Your task to perform on an android device: Go to network settings Image 0: 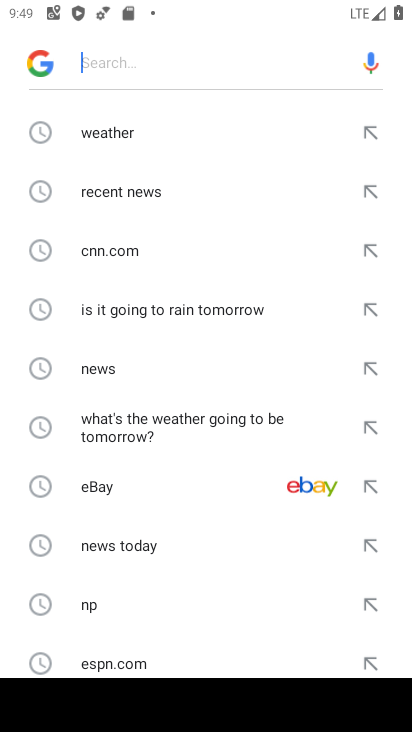
Step 0: press home button
Your task to perform on an android device: Go to network settings Image 1: 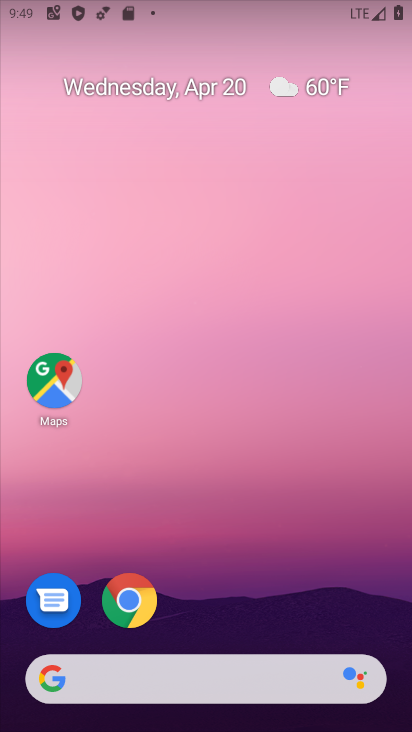
Step 1: drag from (219, 632) to (190, 53)
Your task to perform on an android device: Go to network settings Image 2: 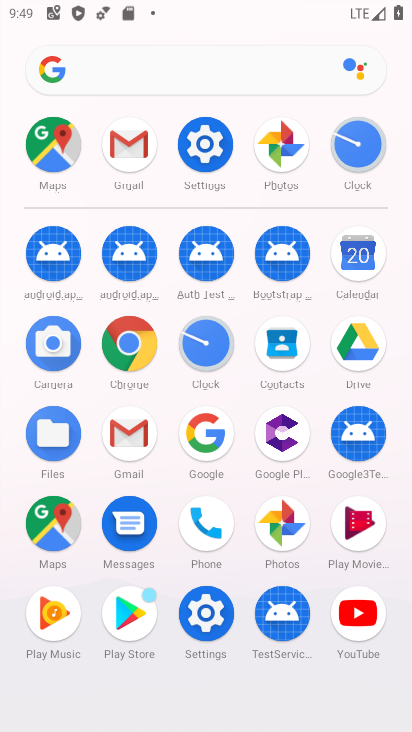
Step 2: click (212, 130)
Your task to perform on an android device: Go to network settings Image 3: 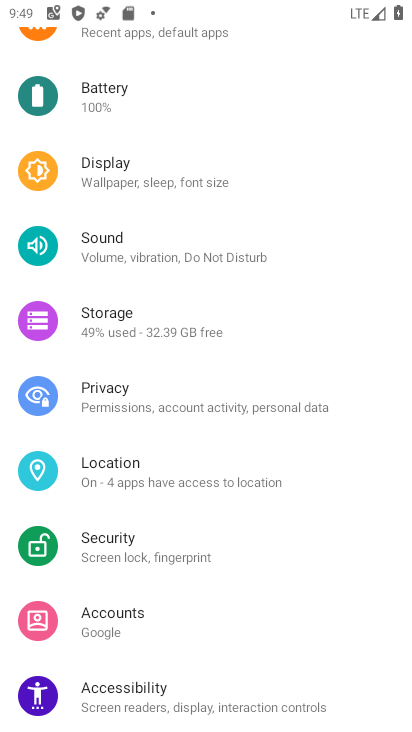
Step 3: drag from (184, 91) to (145, 451)
Your task to perform on an android device: Go to network settings Image 4: 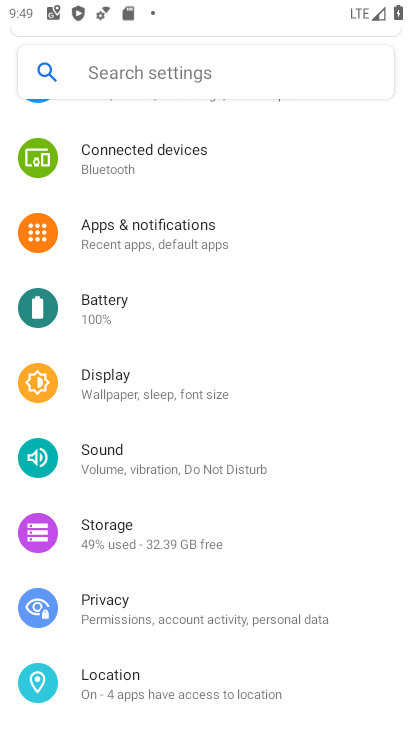
Step 4: drag from (212, 197) to (183, 474)
Your task to perform on an android device: Go to network settings Image 5: 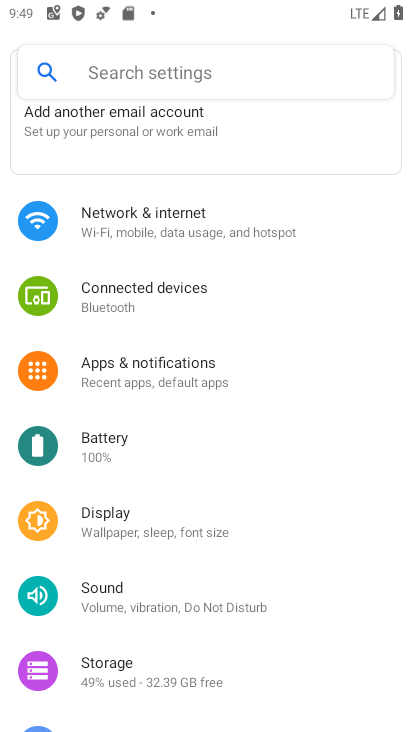
Step 5: click (158, 234)
Your task to perform on an android device: Go to network settings Image 6: 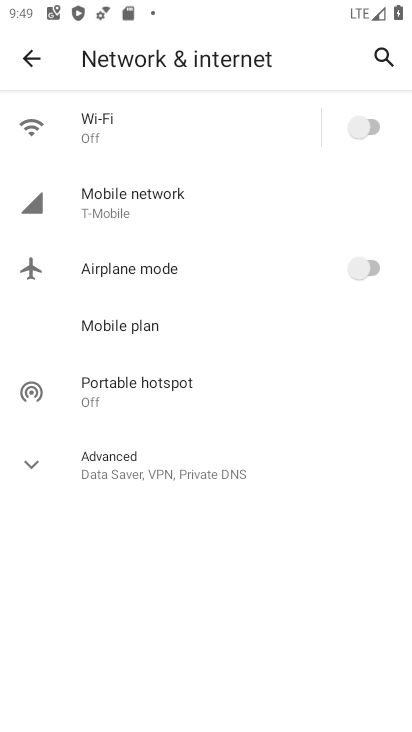
Step 6: task complete